Your task to perform on an android device: Open display settings Image 0: 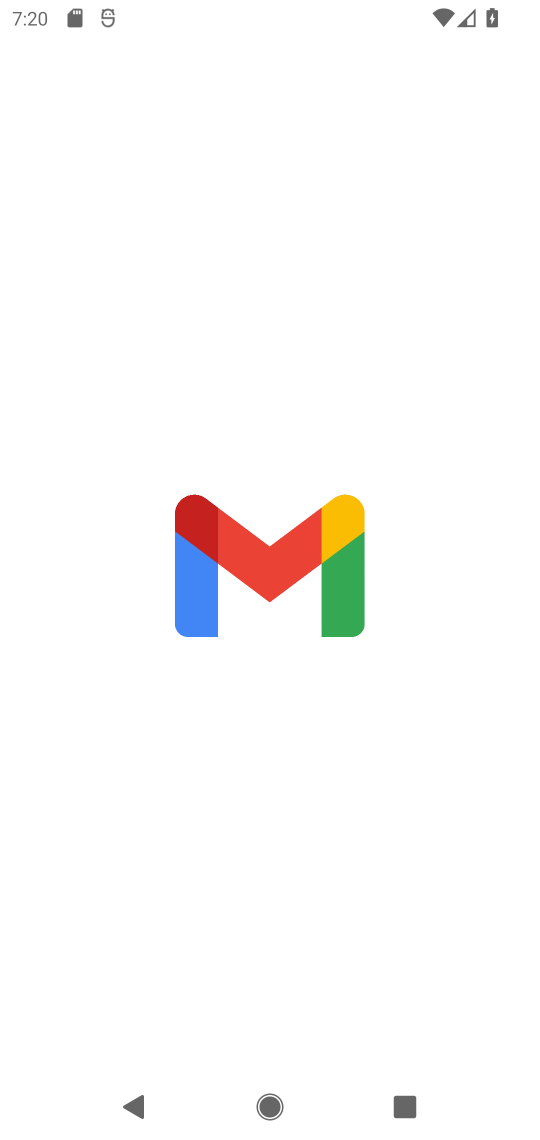
Step 0: press home button
Your task to perform on an android device: Open display settings Image 1: 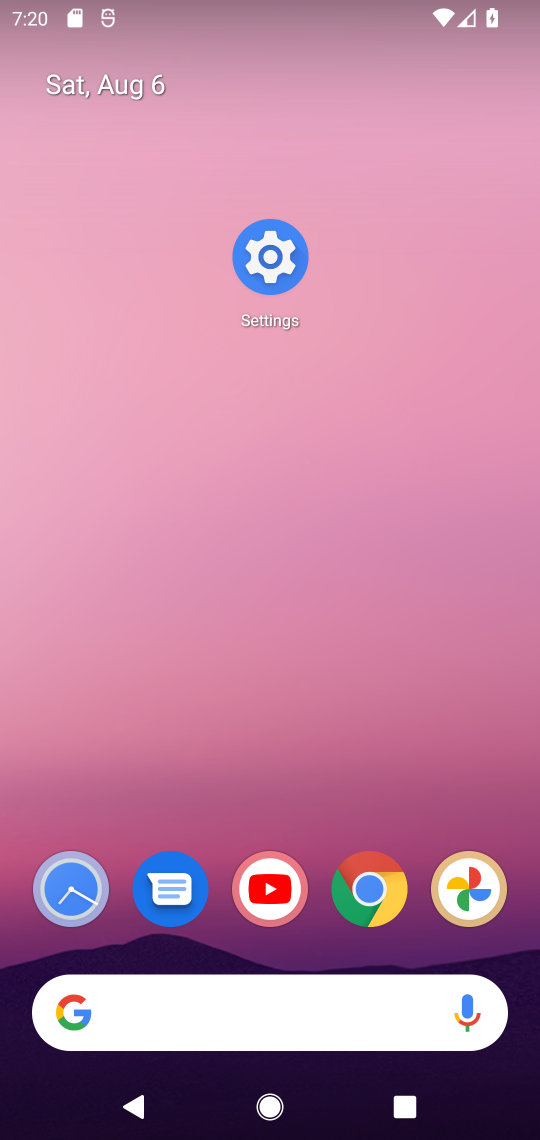
Step 1: click (255, 273)
Your task to perform on an android device: Open display settings Image 2: 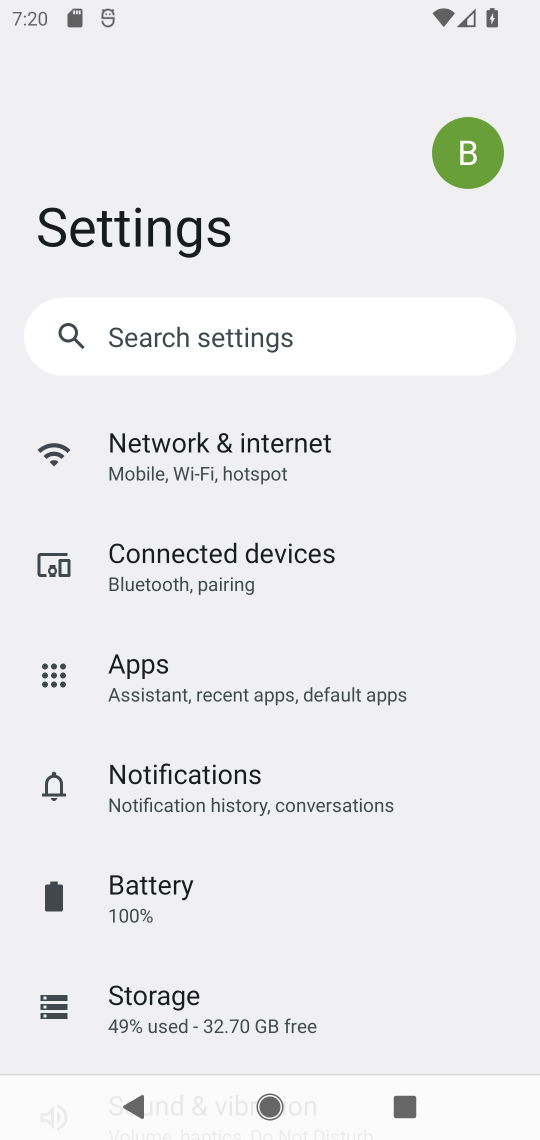
Step 2: drag from (237, 956) to (233, 275)
Your task to perform on an android device: Open display settings Image 3: 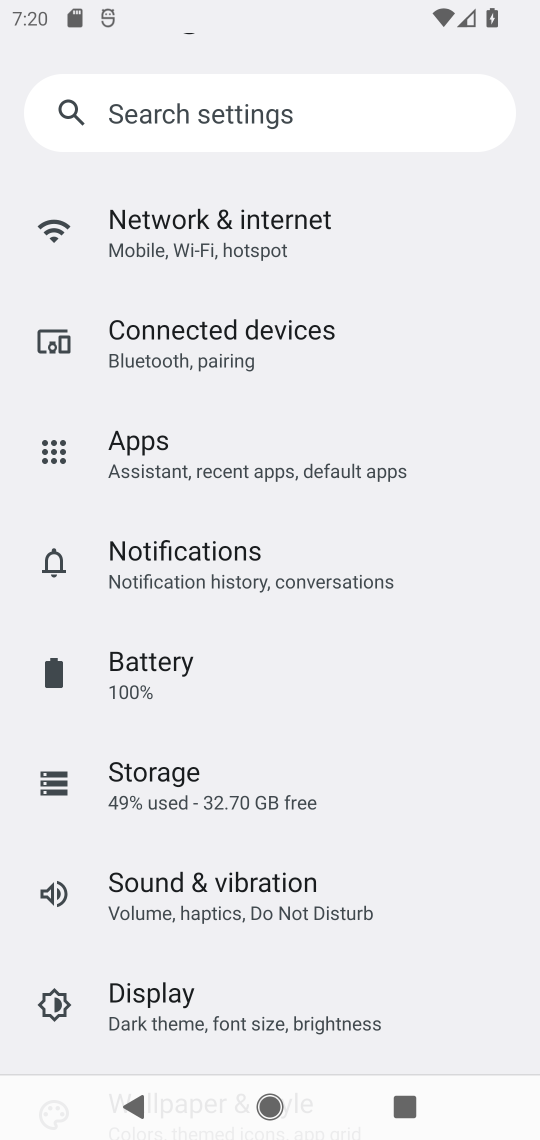
Step 3: click (340, 1031)
Your task to perform on an android device: Open display settings Image 4: 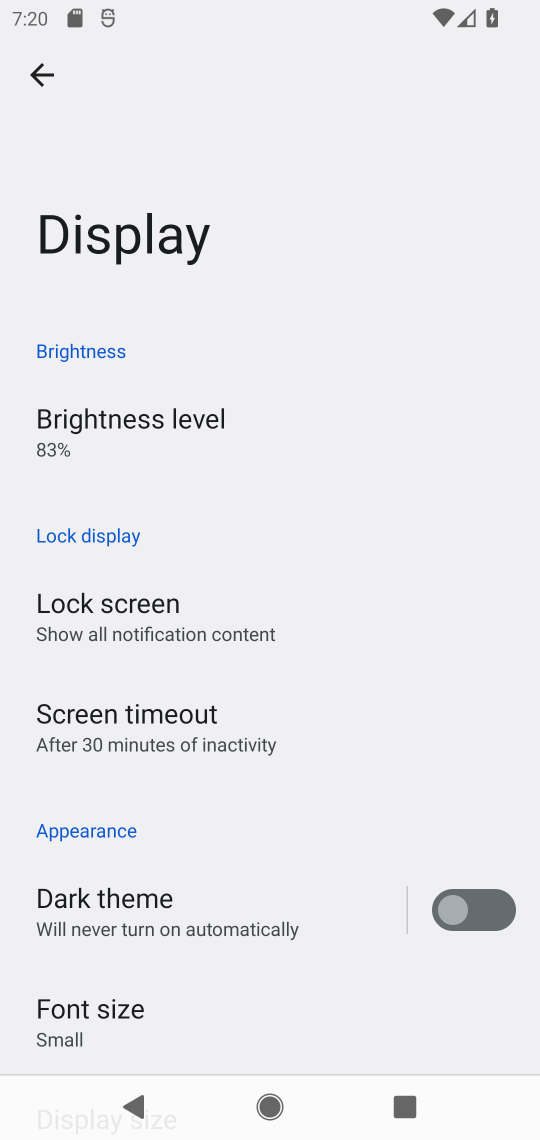
Step 4: task complete